Your task to perform on an android device: turn on javascript in the chrome app Image 0: 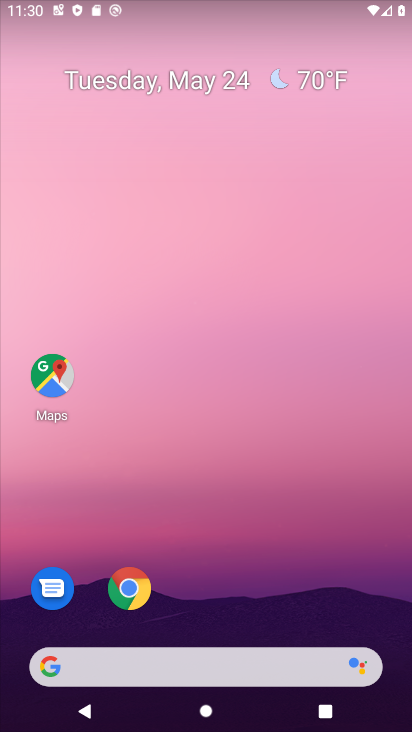
Step 0: press home button
Your task to perform on an android device: turn on javascript in the chrome app Image 1: 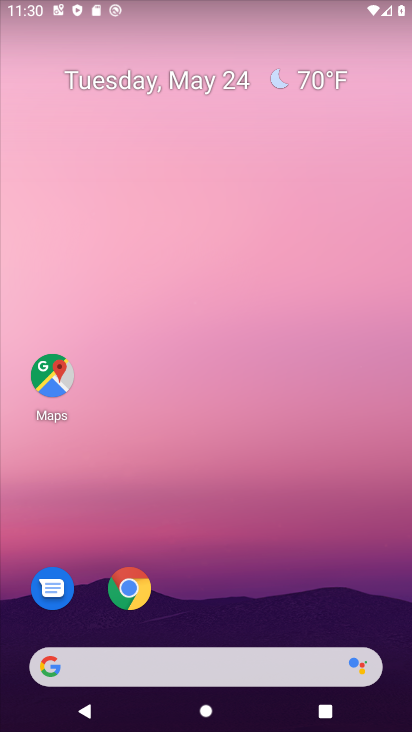
Step 1: click (128, 584)
Your task to perform on an android device: turn on javascript in the chrome app Image 2: 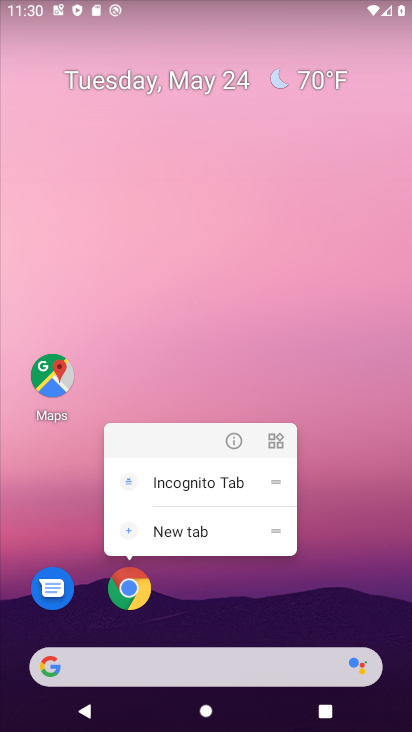
Step 2: click (329, 596)
Your task to perform on an android device: turn on javascript in the chrome app Image 3: 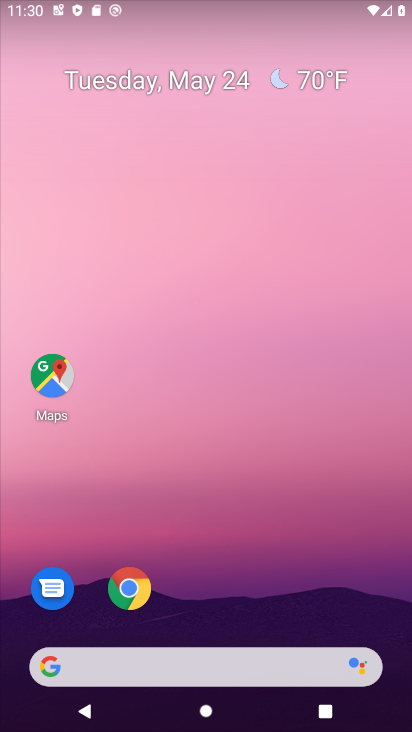
Step 3: drag from (306, 622) to (322, 0)
Your task to perform on an android device: turn on javascript in the chrome app Image 4: 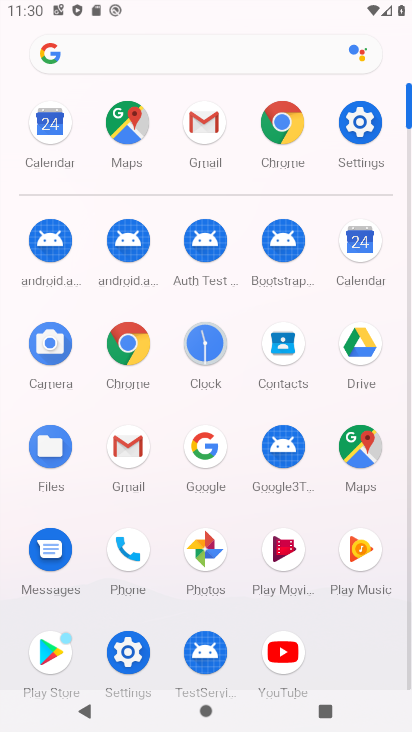
Step 4: click (278, 115)
Your task to perform on an android device: turn on javascript in the chrome app Image 5: 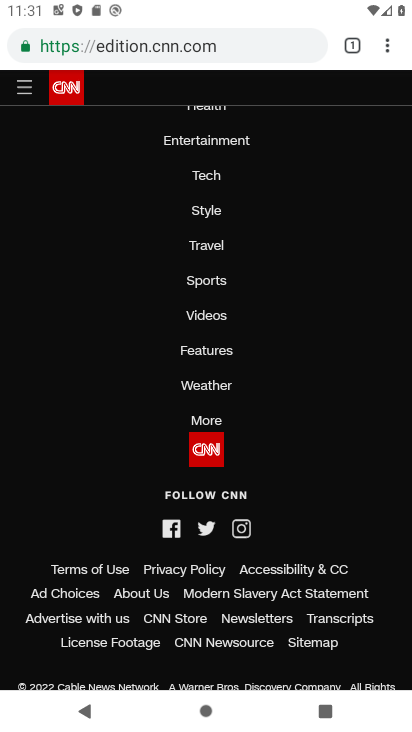
Step 5: click (385, 40)
Your task to perform on an android device: turn on javascript in the chrome app Image 6: 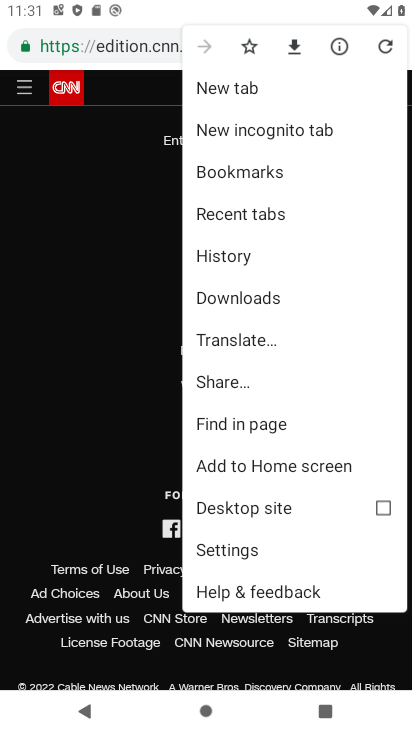
Step 6: click (265, 546)
Your task to perform on an android device: turn on javascript in the chrome app Image 7: 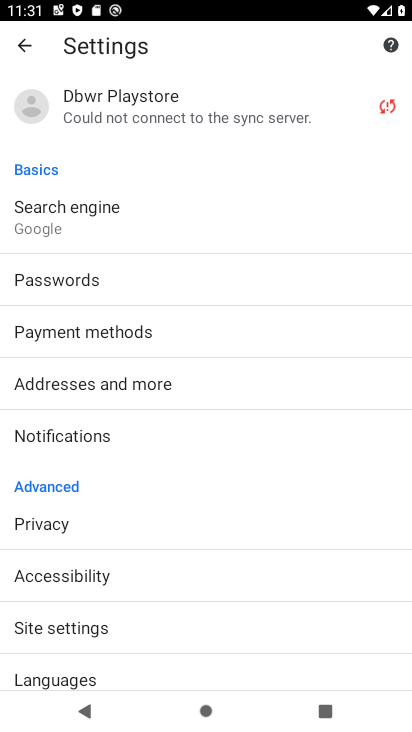
Step 7: click (116, 621)
Your task to perform on an android device: turn on javascript in the chrome app Image 8: 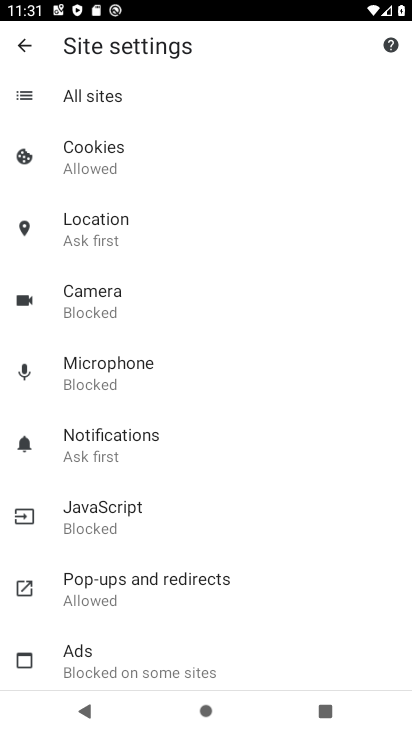
Step 8: click (144, 515)
Your task to perform on an android device: turn on javascript in the chrome app Image 9: 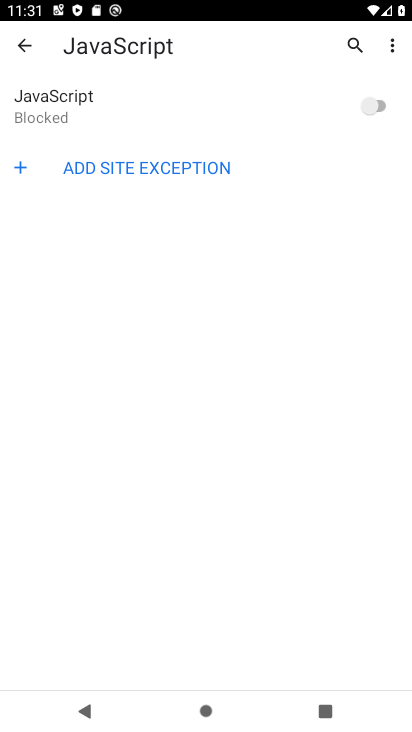
Step 9: click (370, 99)
Your task to perform on an android device: turn on javascript in the chrome app Image 10: 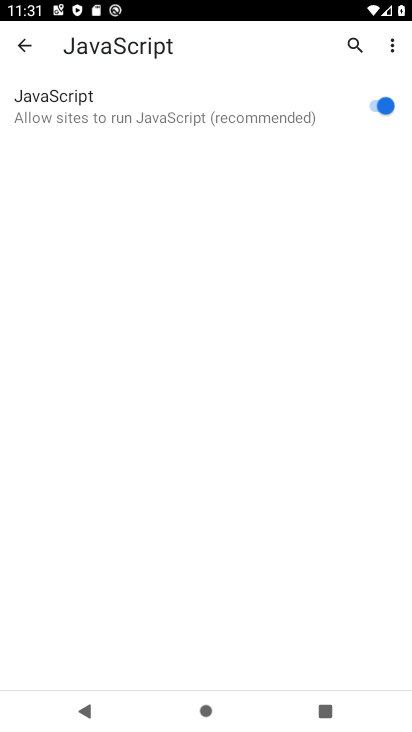
Step 10: task complete